Your task to perform on an android device: turn off notifications settings in the gmail app Image 0: 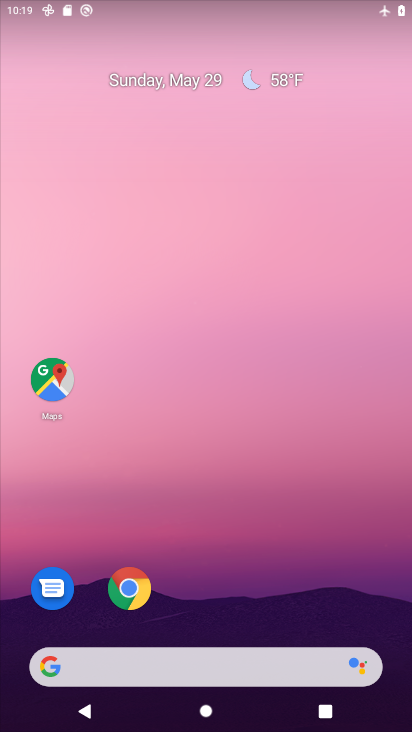
Step 0: drag from (239, 699) to (201, 99)
Your task to perform on an android device: turn off notifications settings in the gmail app Image 1: 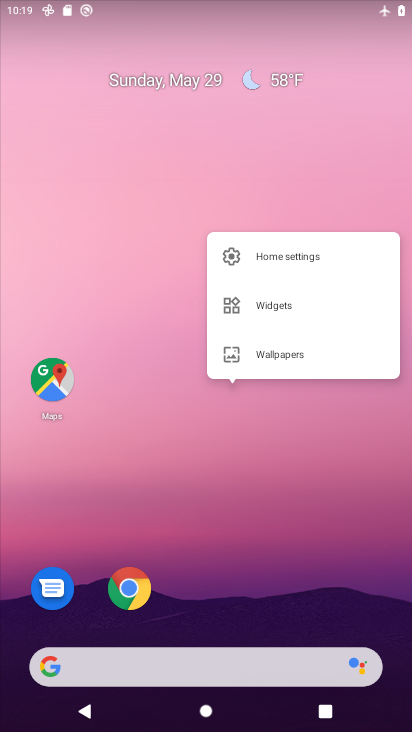
Step 1: drag from (253, 543) to (198, 193)
Your task to perform on an android device: turn off notifications settings in the gmail app Image 2: 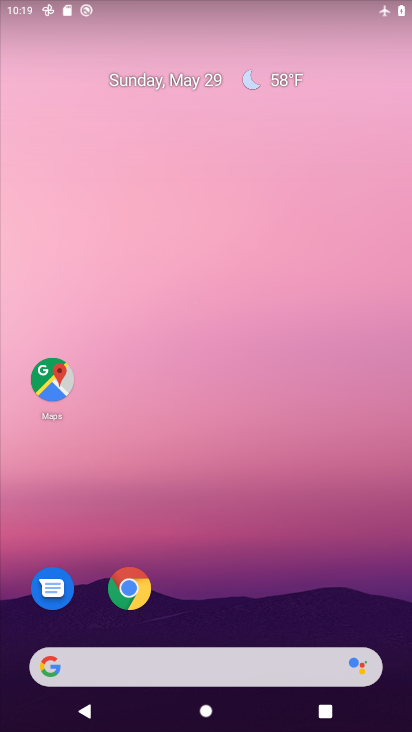
Step 2: drag from (242, 654) to (172, 298)
Your task to perform on an android device: turn off notifications settings in the gmail app Image 3: 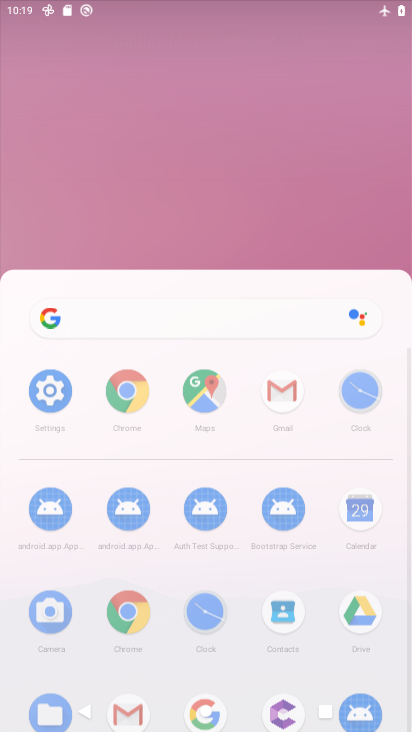
Step 3: drag from (260, 625) to (186, 279)
Your task to perform on an android device: turn off notifications settings in the gmail app Image 4: 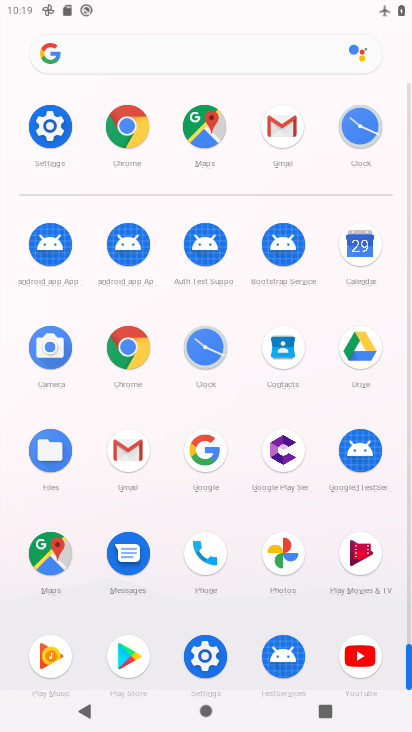
Step 4: click (127, 452)
Your task to perform on an android device: turn off notifications settings in the gmail app Image 5: 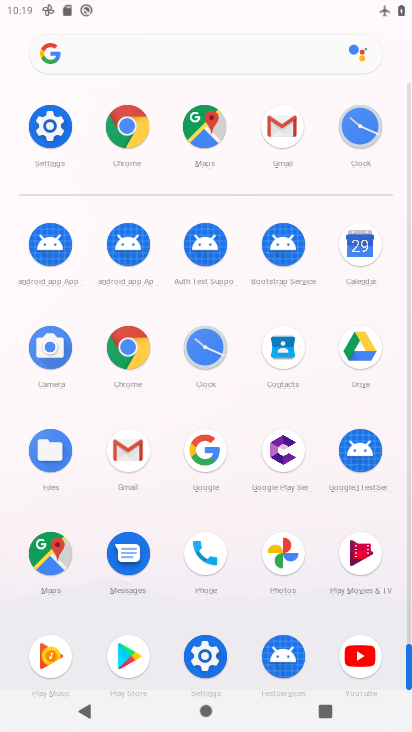
Step 5: click (127, 447)
Your task to perform on an android device: turn off notifications settings in the gmail app Image 6: 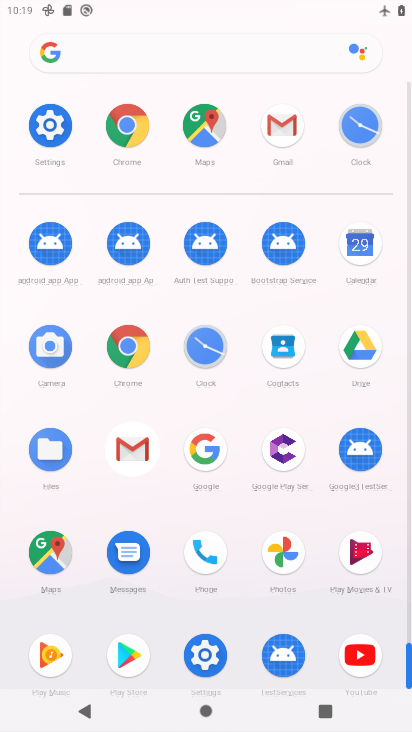
Step 6: click (127, 447)
Your task to perform on an android device: turn off notifications settings in the gmail app Image 7: 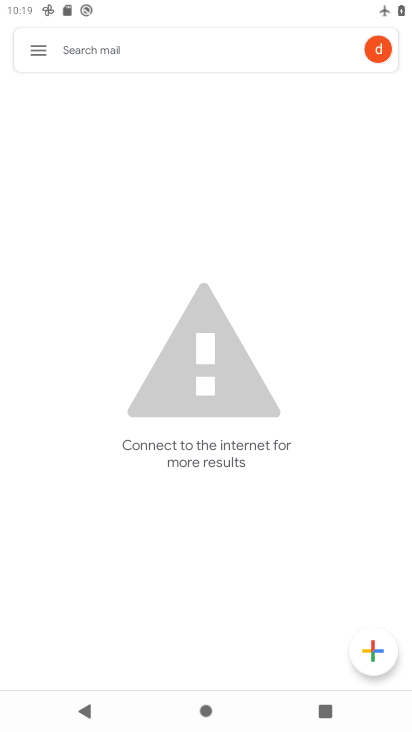
Step 7: click (126, 444)
Your task to perform on an android device: turn off notifications settings in the gmail app Image 8: 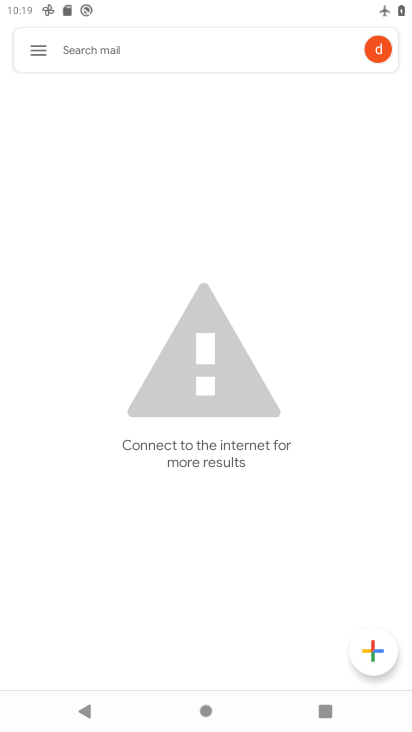
Step 8: click (124, 439)
Your task to perform on an android device: turn off notifications settings in the gmail app Image 9: 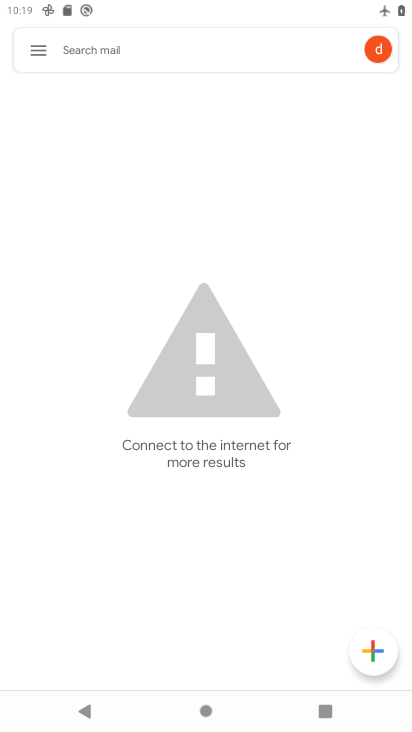
Step 9: click (43, 56)
Your task to perform on an android device: turn off notifications settings in the gmail app Image 10: 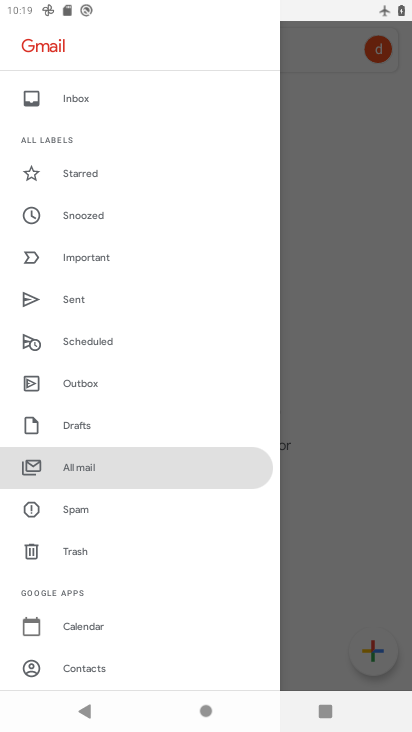
Step 10: drag from (73, 568) to (45, 164)
Your task to perform on an android device: turn off notifications settings in the gmail app Image 11: 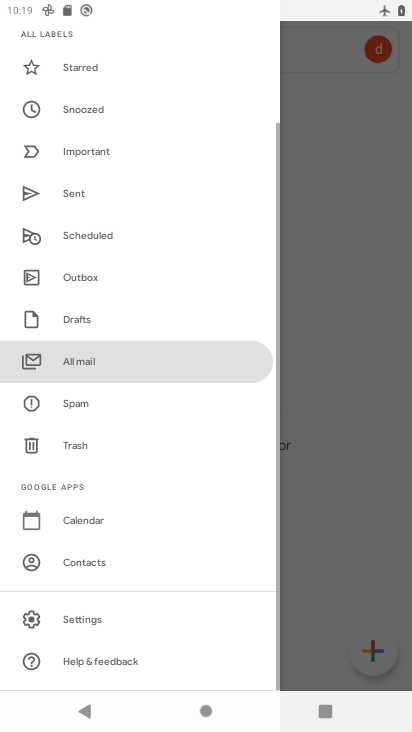
Step 11: drag from (65, 207) to (65, 91)
Your task to perform on an android device: turn off notifications settings in the gmail app Image 12: 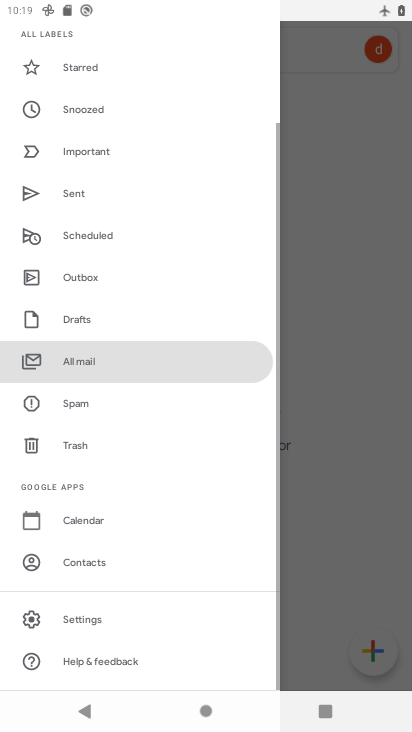
Step 12: click (90, 610)
Your task to perform on an android device: turn off notifications settings in the gmail app Image 13: 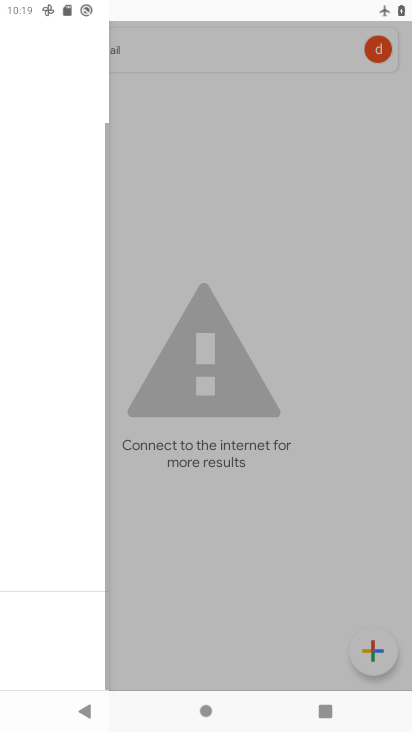
Step 13: click (85, 610)
Your task to perform on an android device: turn off notifications settings in the gmail app Image 14: 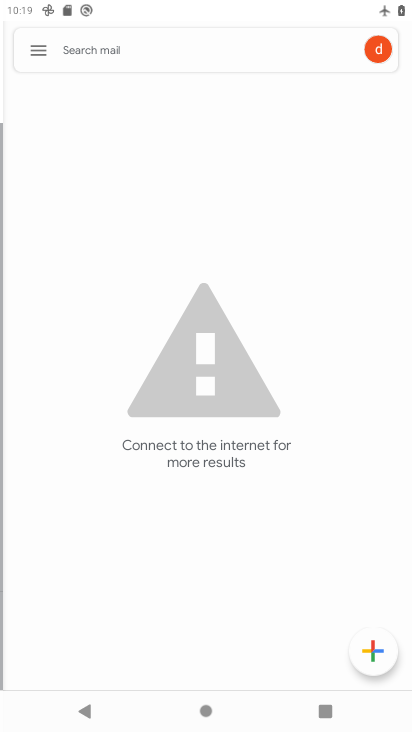
Step 14: click (78, 608)
Your task to perform on an android device: turn off notifications settings in the gmail app Image 15: 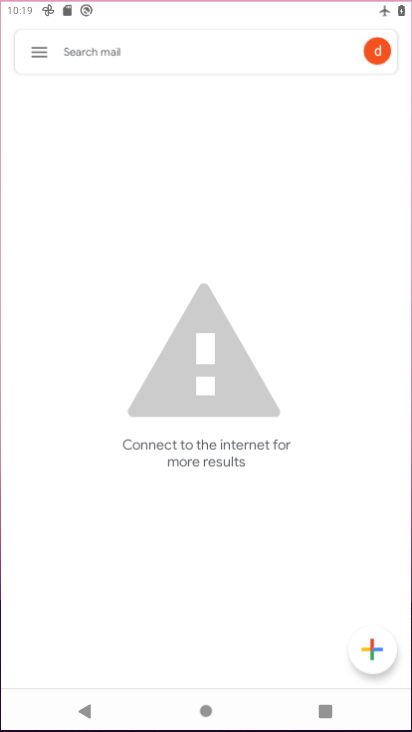
Step 15: click (75, 608)
Your task to perform on an android device: turn off notifications settings in the gmail app Image 16: 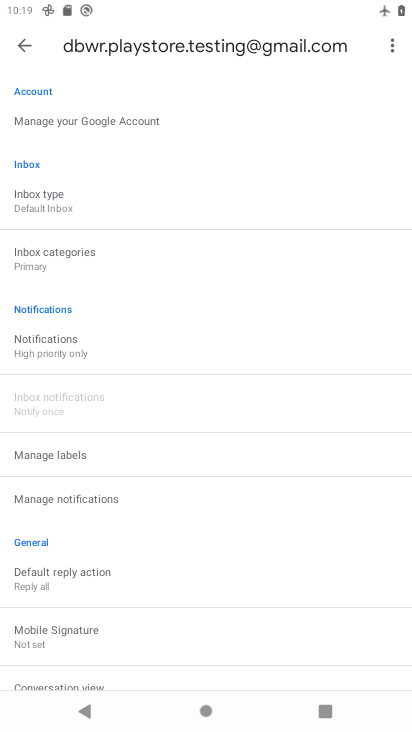
Step 16: click (38, 350)
Your task to perform on an android device: turn off notifications settings in the gmail app Image 17: 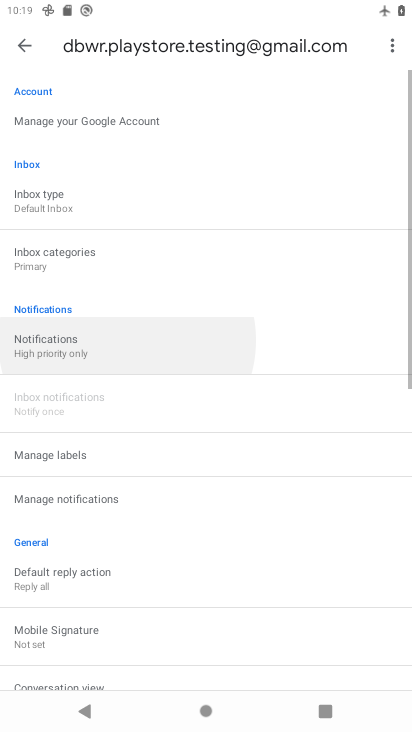
Step 17: click (38, 350)
Your task to perform on an android device: turn off notifications settings in the gmail app Image 18: 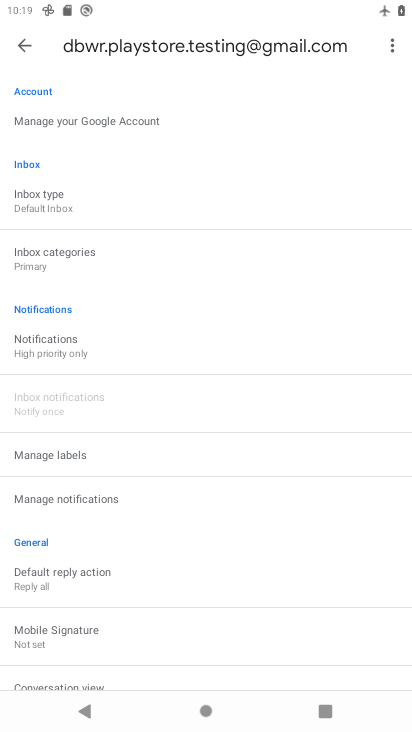
Step 18: click (47, 355)
Your task to perform on an android device: turn off notifications settings in the gmail app Image 19: 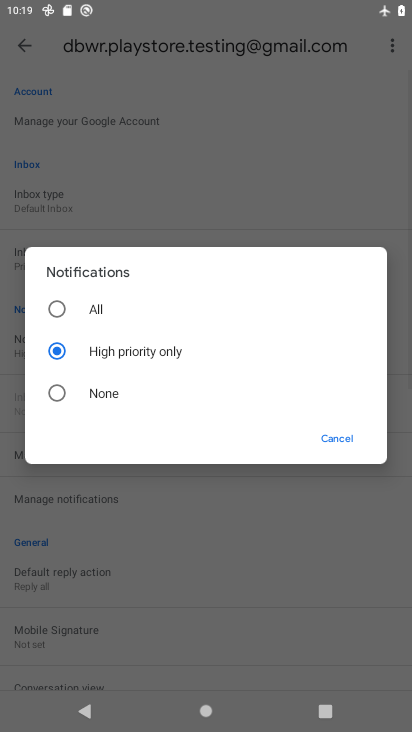
Step 19: click (58, 394)
Your task to perform on an android device: turn off notifications settings in the gmail app Image 20: 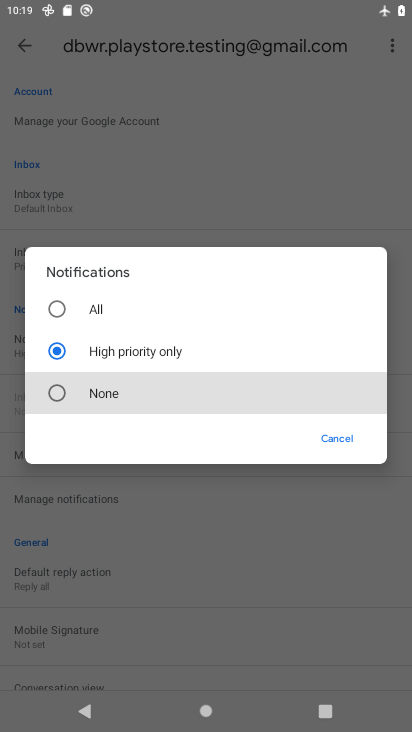
Step 20: click (58, 394)
Your task to perform on an android device: turn off notifications settings in the gmail app Image 21: 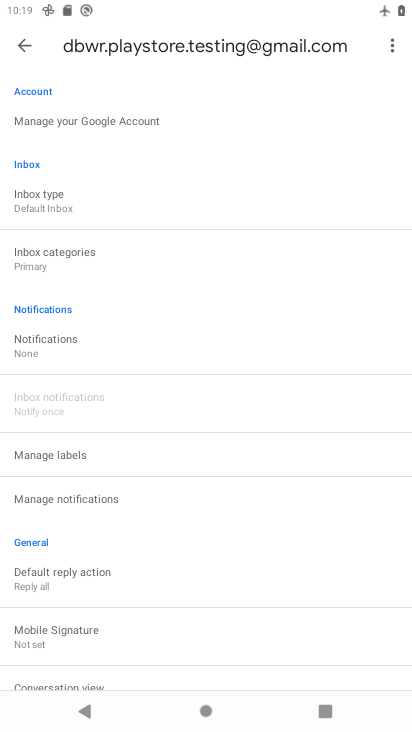
Step 21: task complete